Your task to perform on an android device: allow notifications from all sites in the chrome app Image 0: 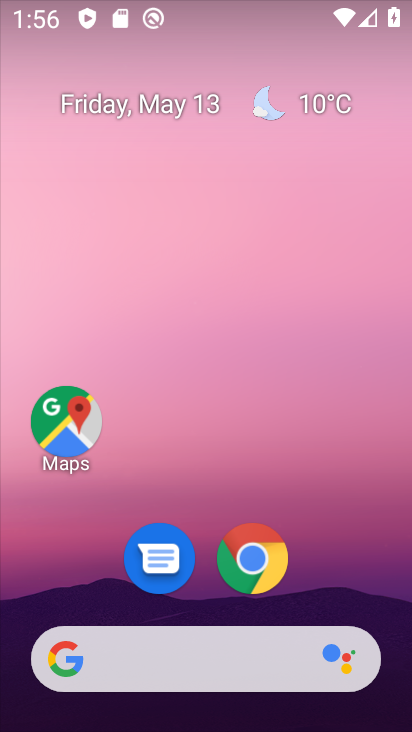
Step 0: click (253, 561)
Your task to perform on an android device: allow notifications from all sites in the chrome app Image 1: 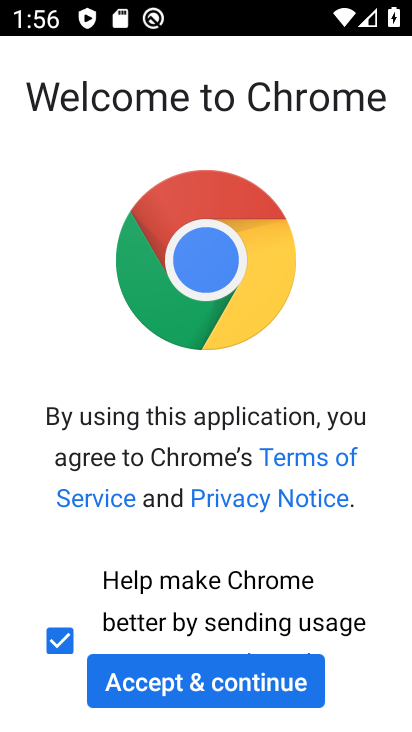
Step 1: click (293, 673)
Your task to perform on an android device: allow notifications from all sites in the chrome app Image 2: 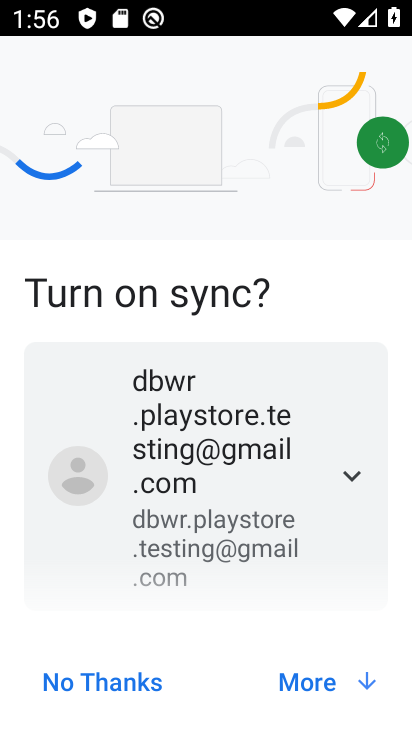
Step 2: click (293, 673)
Your task to perform on an android device: allow notifications from all sites in the chrome app Image 3: 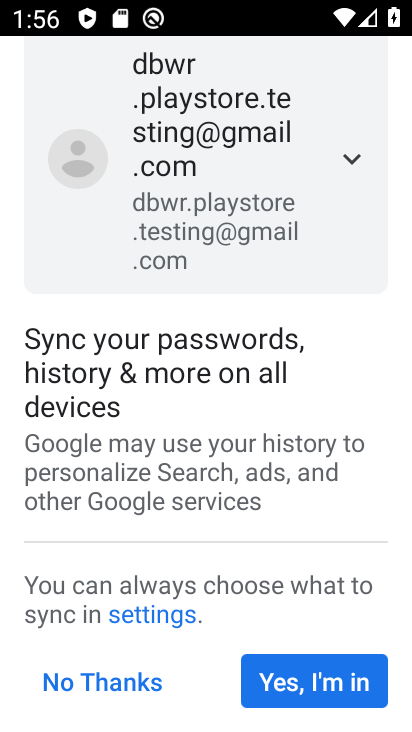
Step 3: click (293, 673)
Your task to perform on an android device: allow notifications from all sites in the chrome app Image 4: 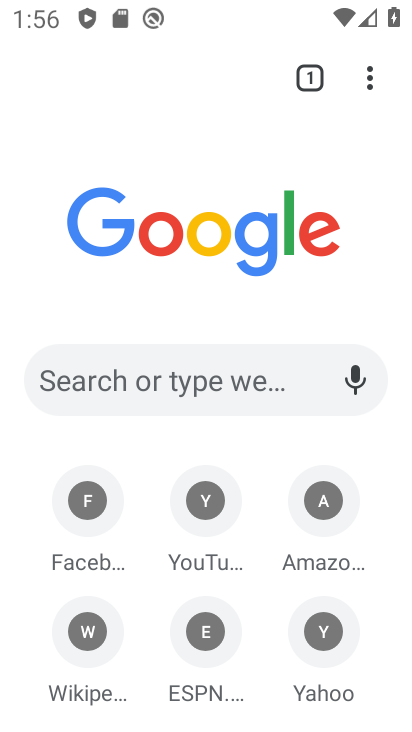
Step 4: drag from (367, 80) to (171, 632)
Your task to perform on an android device: allow notifications from all sites in the chrome app Image 5: 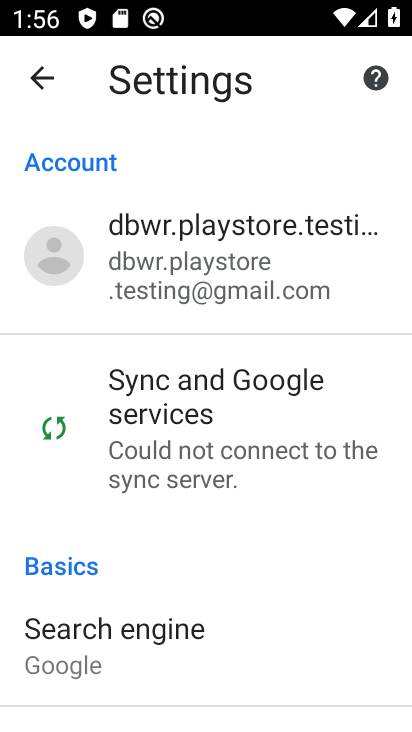
Step 5: drag from (209, 581) to (231, 278)
Your task to perform on an android device: allow notifications from all sites in the chrome app Image 6: 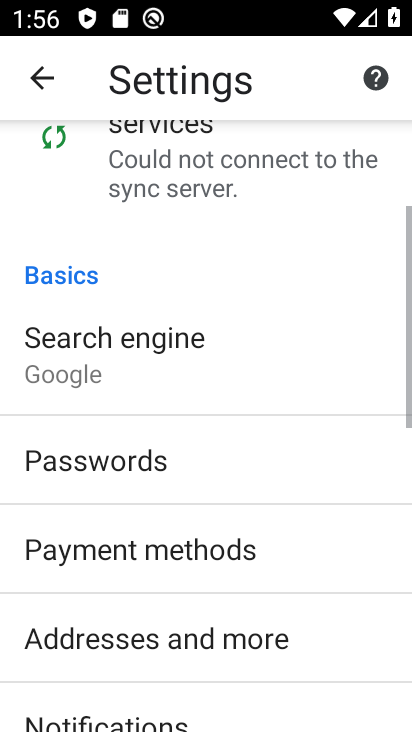
Step 6: drag from (207, 600) to (243, 294)
Your task to perform on an android device: allow notifications from all sites in the chrome app Image 7: 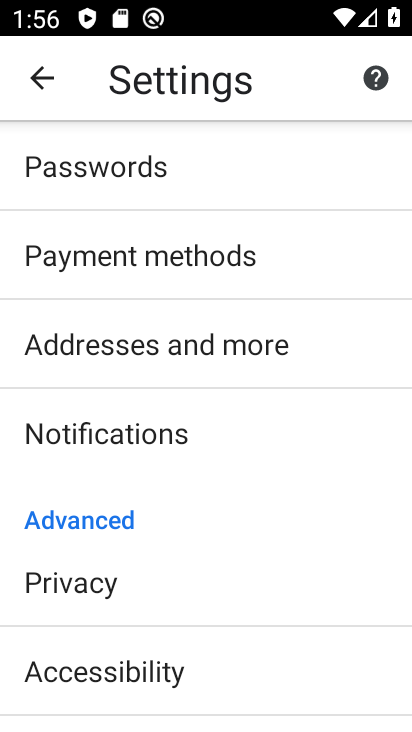
Step 7: drag from (239, 529) to (256, 322)
Your task to perform on an android device: allow notifications from all sites in the chrome app Image 8: 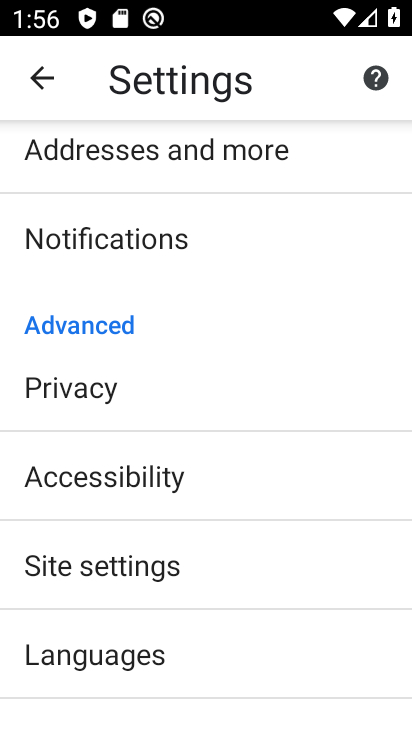
Step 8: click (230, 560)
Your task to perform on an android device: allow notifications from all sites in the chrome app Image 9: 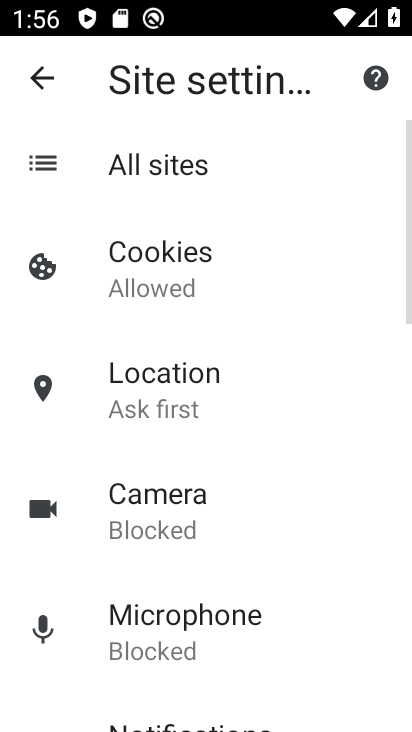
Step 9: click (185, 162)
Your task to perform on an android device: allow notifications from all sites in the chrome app Image 10: 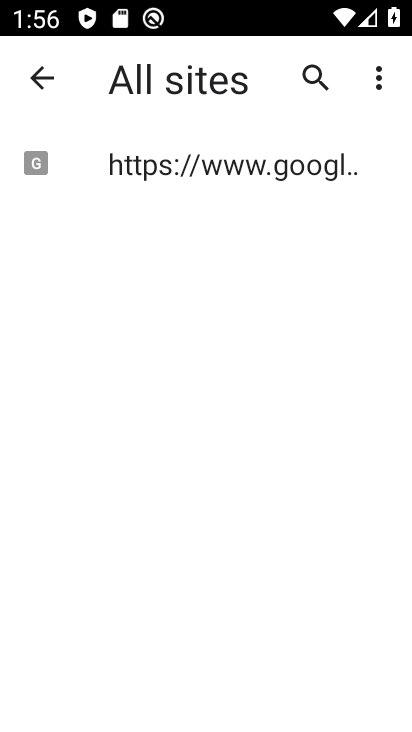
Step 10: click (185, 162)
Your task to perform on an android device: allow notifications from all sites in the chrome app Image 11: 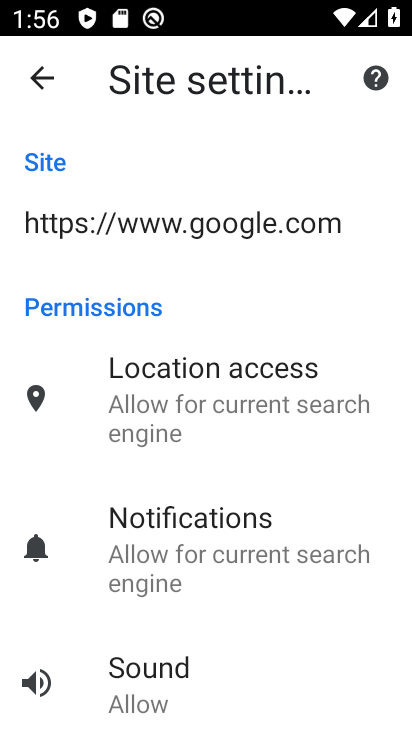
Step 11: click (215, 540)
Your task to perform on an android device: allow notifications from all sites in the chrome app Image 12: 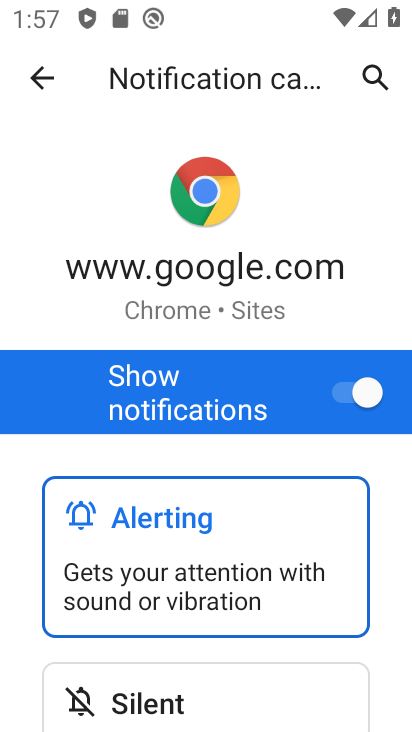
Step 12: task complete